Your task to perform on an android device: Empty the shopping cart on bestbuy.com. Search for amazon basics triple a on bestbuy.com, select the first entry, add it to the cart, then select checkout. Image 0: 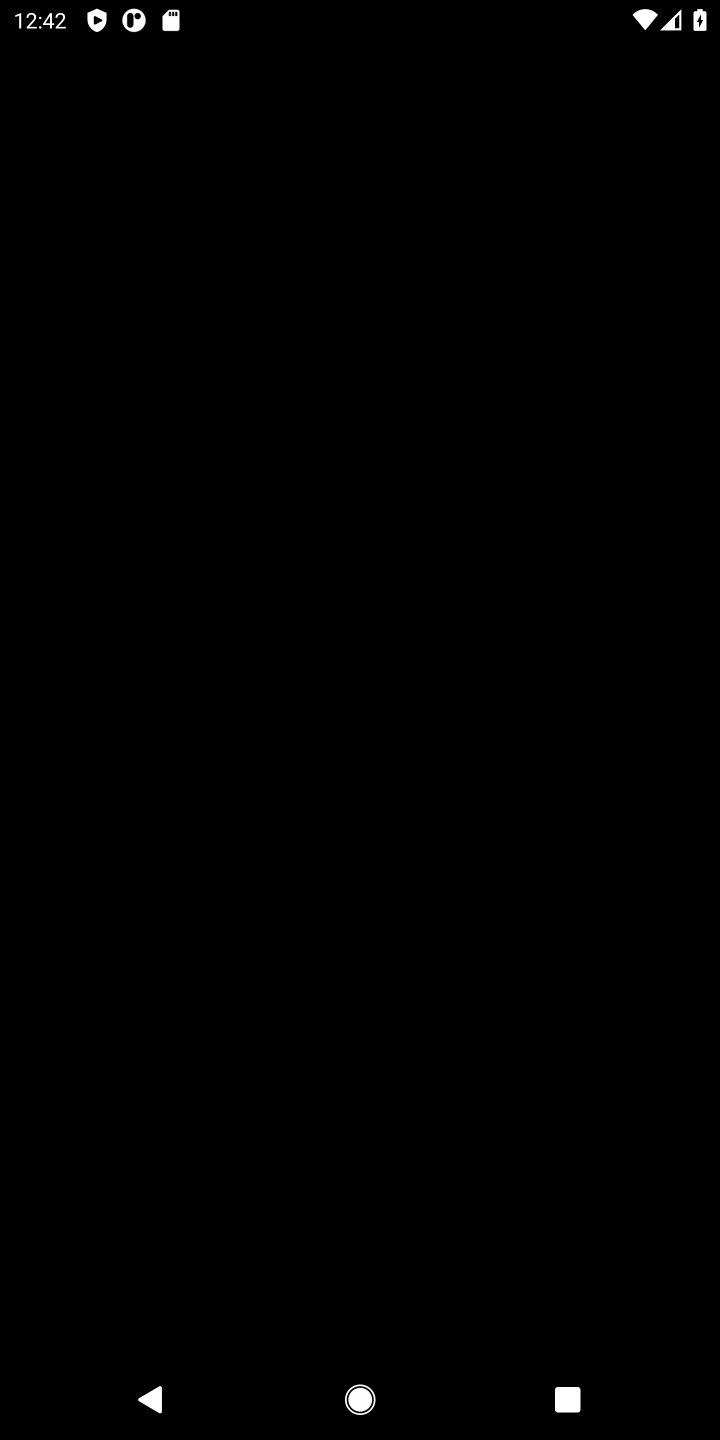
Step 0: task complete